Your task to perform on an android device: Open calendar and show me the second week of next month Image 0: 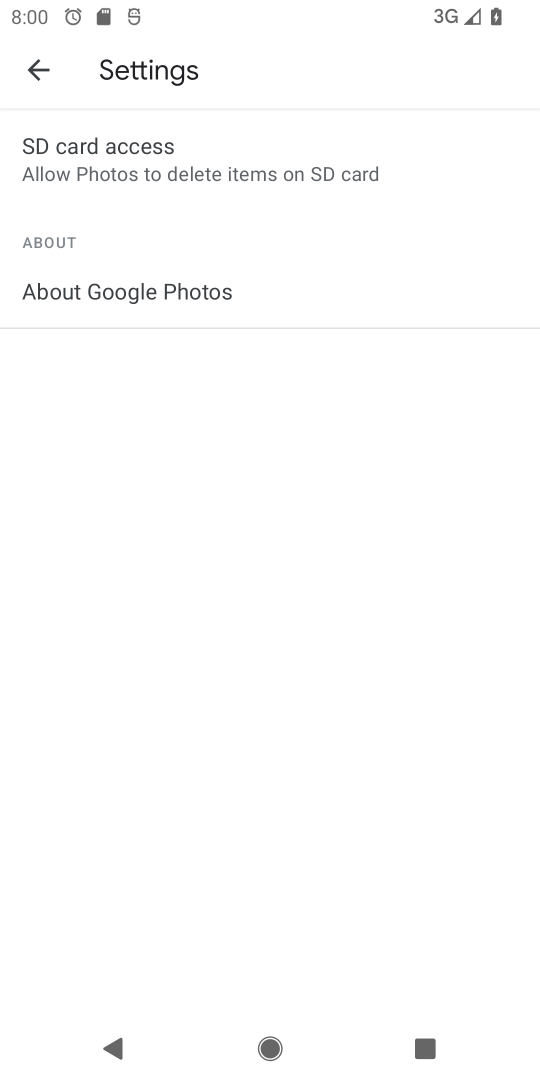
Step 0: press home button
Your task to perform on an android device: Open calendar and show me the second week of next month Image 1: 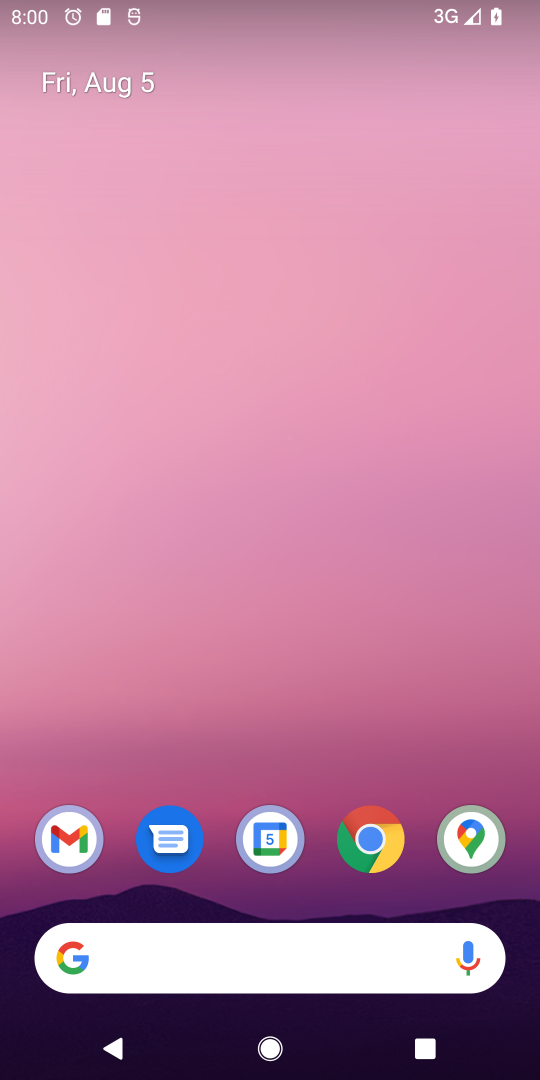
Step 1: drag from (287, 268) to (298, 140)
Your task to perform on an android device: Open calendar and show me the second week of next month Image 2: 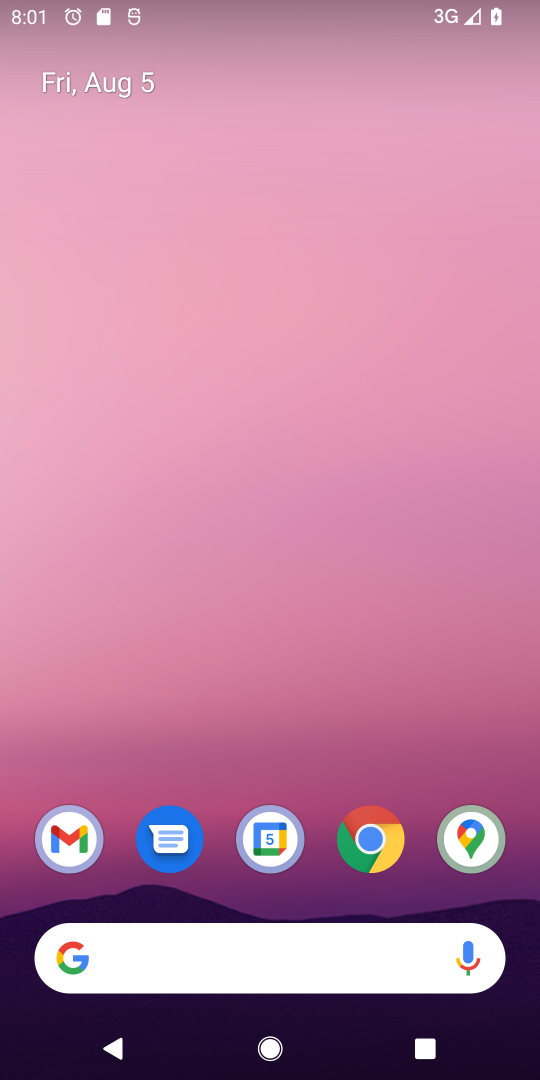
Step 2: drag from (308, 750) to (333, 49)
Your task to perform on an android device: Open calendar and show me the second week of next month Image 3: 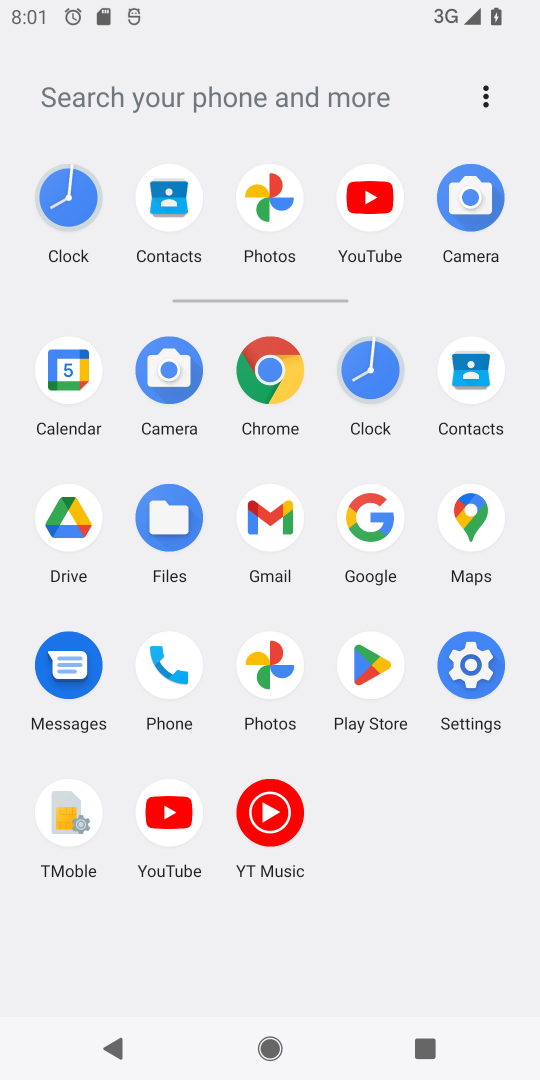
Step 3: click (62, 414)
Your task to perform on an android device: Open calendar and show me the second week of next month Image 4: 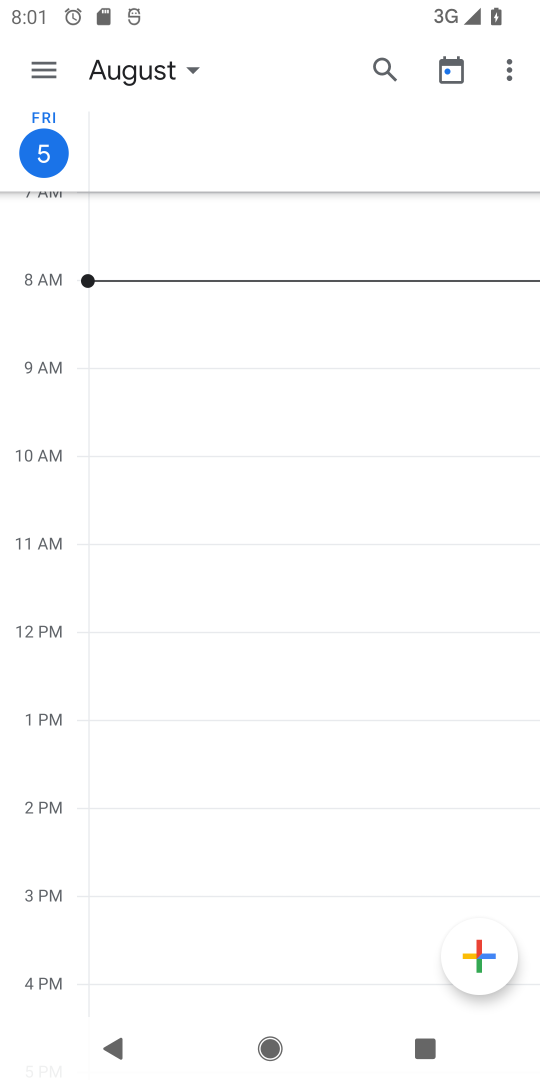
Step 4: click (166, 78)
Your task to perform on an android device: Open calendar and show me the second week of next month Image 5: 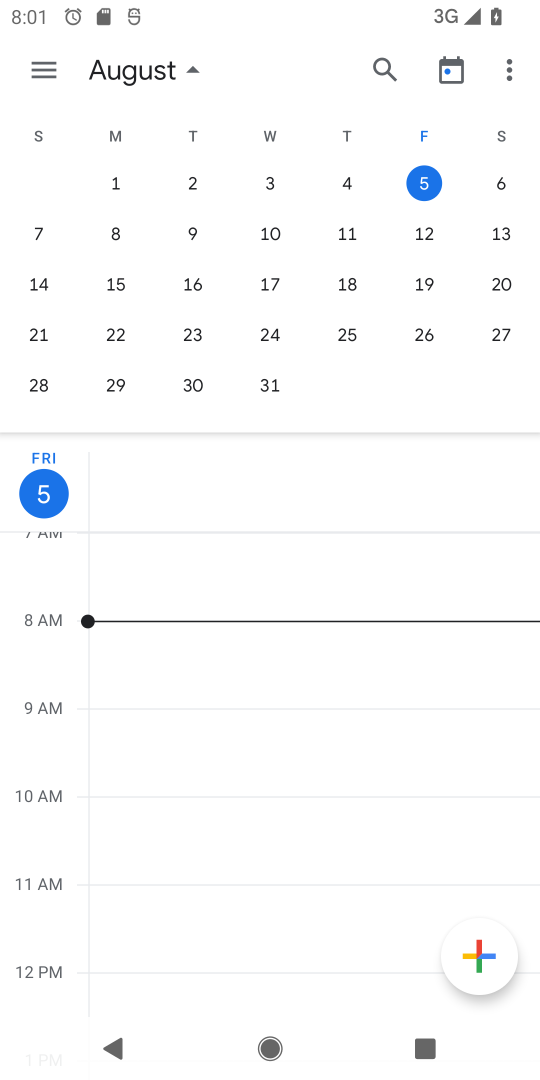
Step 5: drag from (442, 249) to (1, 253)
Your task to perform on an android device: Open calendar and show me the second week of next month Image 6: 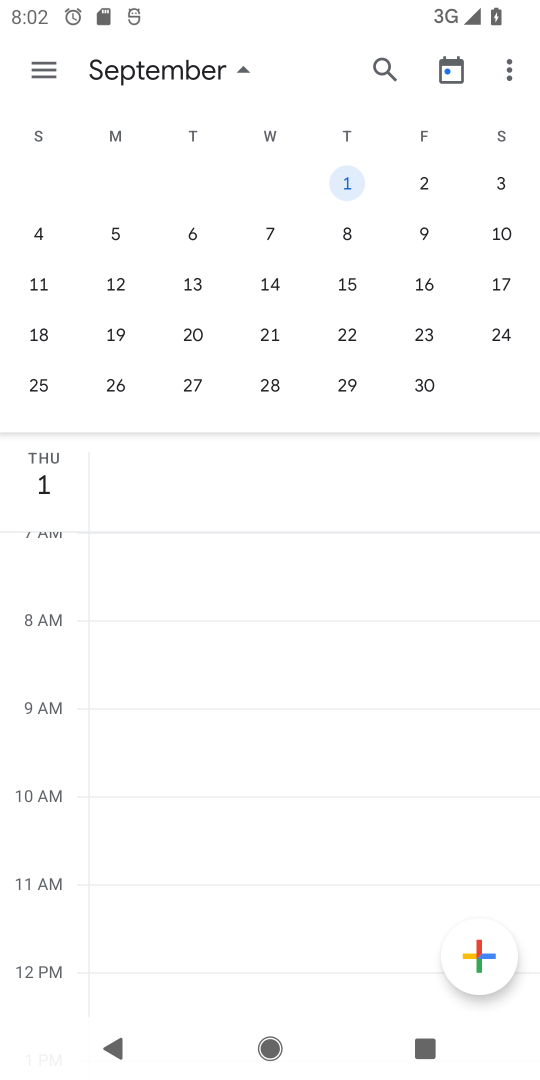
Step 6: click (39, 247)
Your task to perform on an android device: Open calendar and show me the second week of next month Image 7: 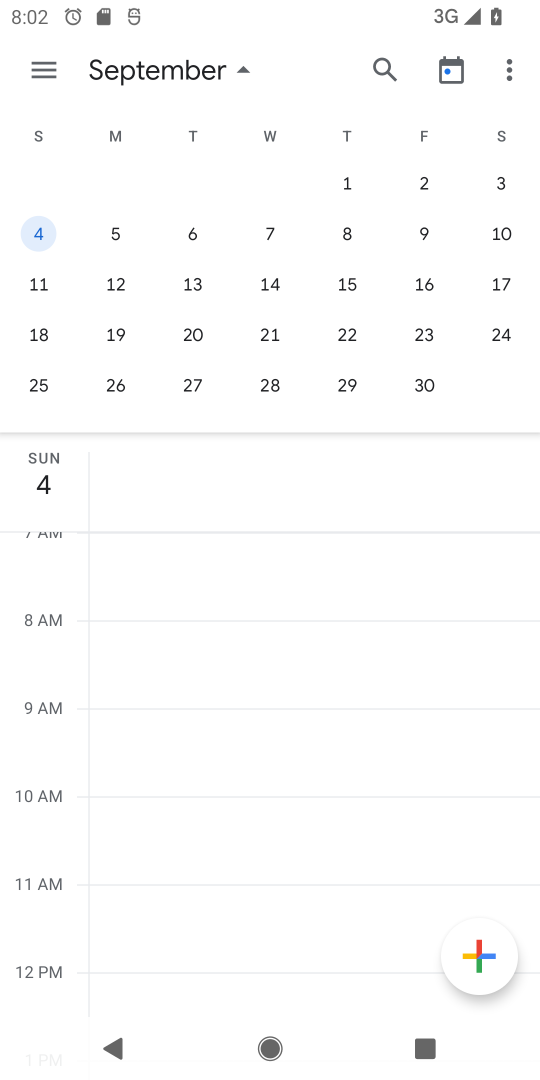
Step 7: task complete